Your task to perform on an android device: Play the last video I watched on Youtube Image 0: 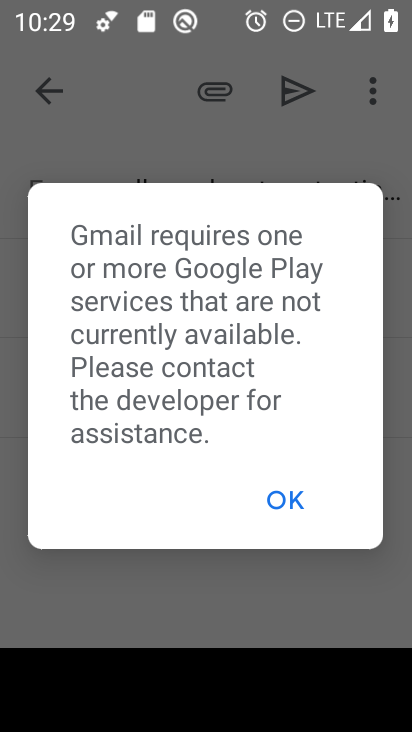
Step 0: press home button
Your task to perform on an android device: Play the last video I watched on Youtube Image 1: 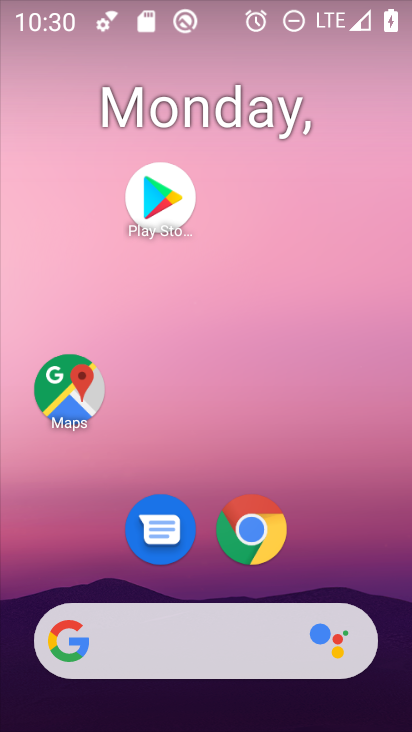
Step 1: drag from (317, 510) to (170, 144)
Your task to perform on an android device: Play the last video I watched on Youtube Image 2: 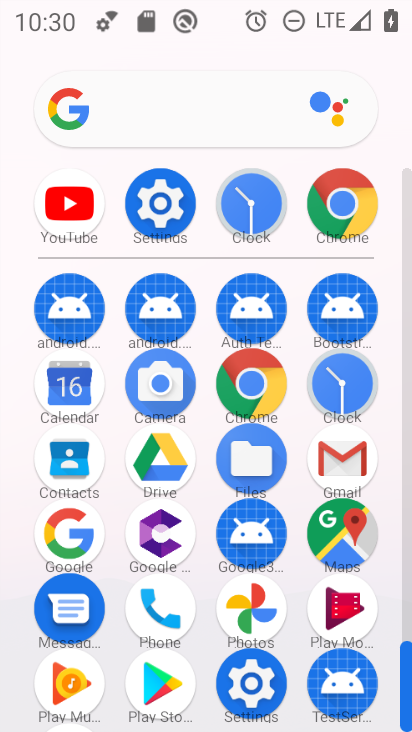
Step 2: click (66, 211)
Your task to perform on an android device: Play the last video I watched on Youtube Image 3: 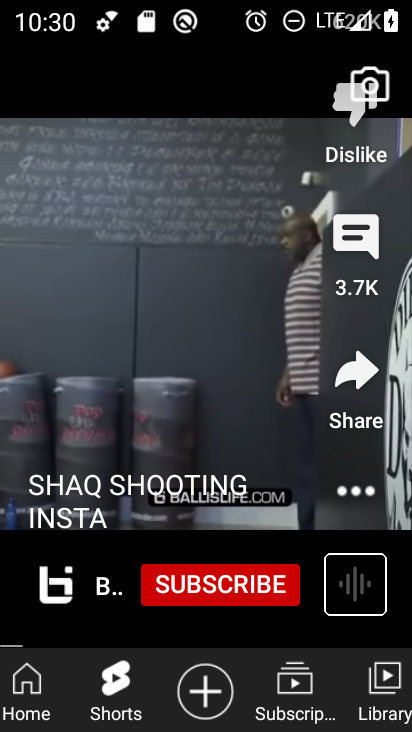
Step 3: click (377, 679)
Your task to perform on an android device: Play the last video I watched on Youtube Image 4: 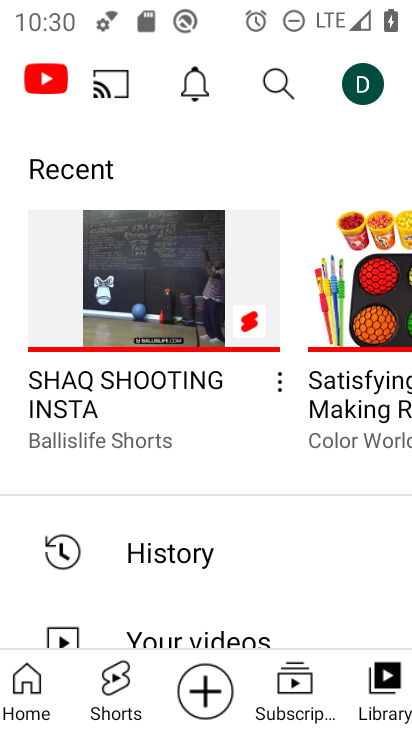
Step 4: click (170, 288)
Your task to perform on an android device: Play the last video I watched on Youtube Image 5: 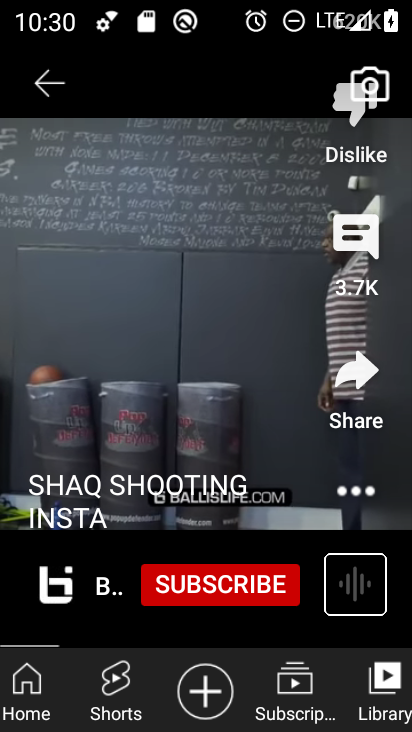
Step 5: task complete